Your task to perform on an android device: Go to internet settings Image 0: 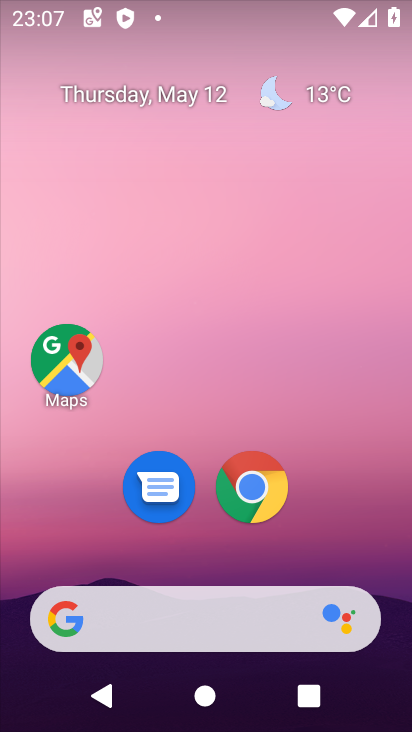
Step 0: drag from (255, 10) to (45, 590)
Your task to perform on an android device: Go to internet settings Image 1: 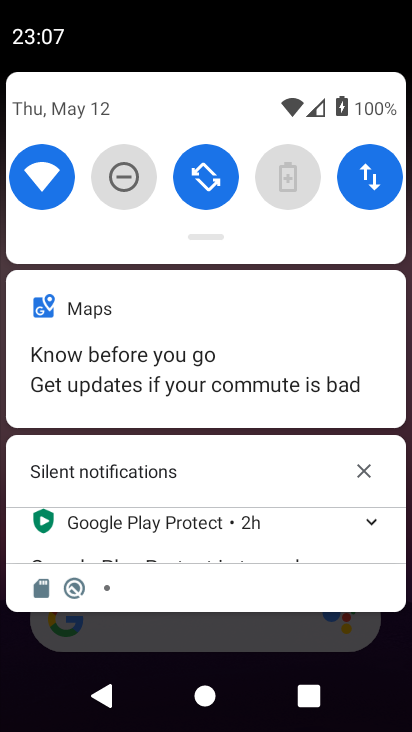
Step 1: click (361, 179)
Your task to perform on an android device: Go to internet settings Image 2: 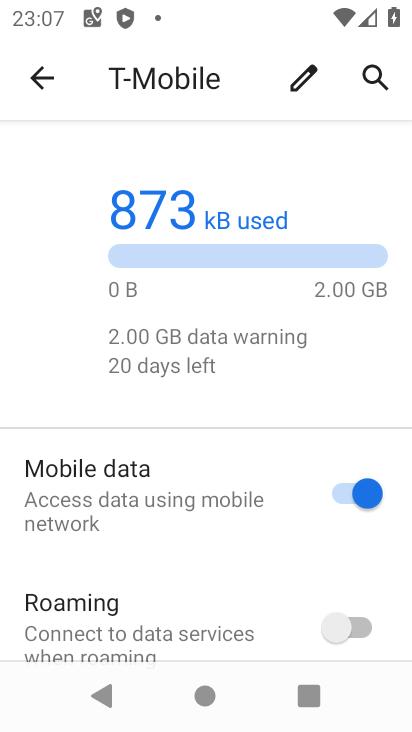
Step 2: task complete